Your task to perform on an android device: Check the news Image 0: 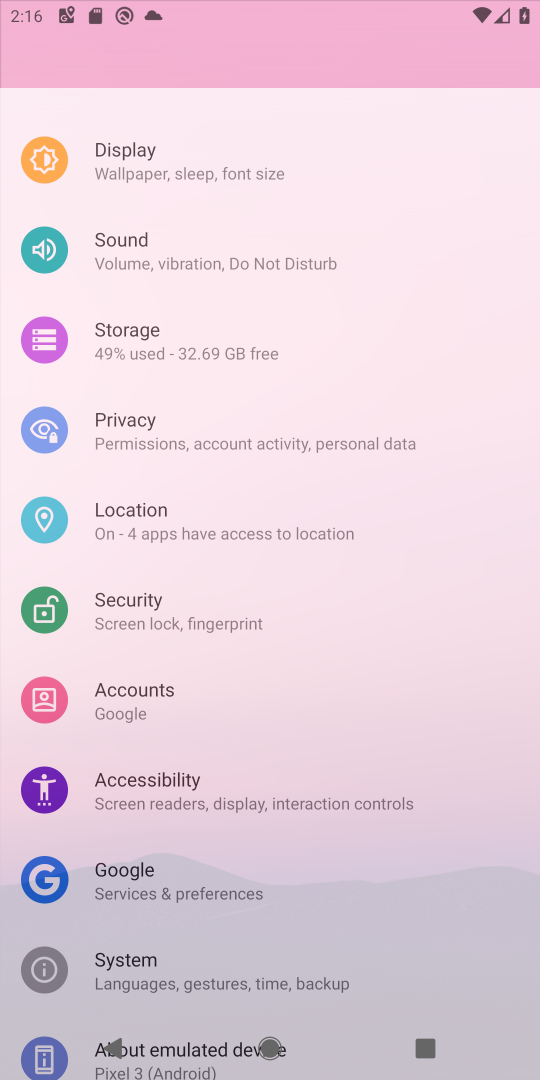
Step 0: press home button
Your task to perform on an android device: Check the news Image 1: 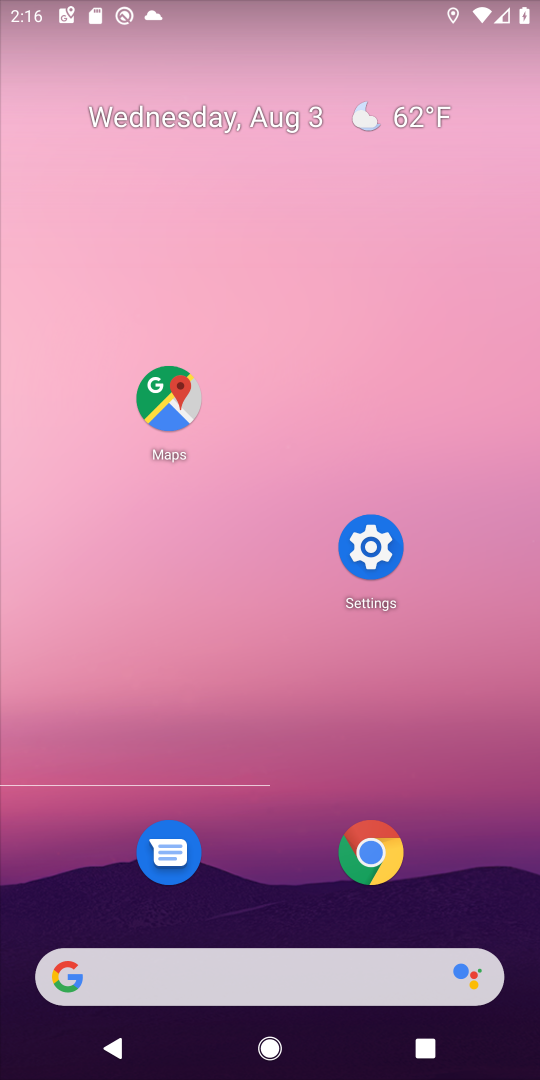
Step 1: press home button
Your task to perform on an android device: Check the news Image 2: 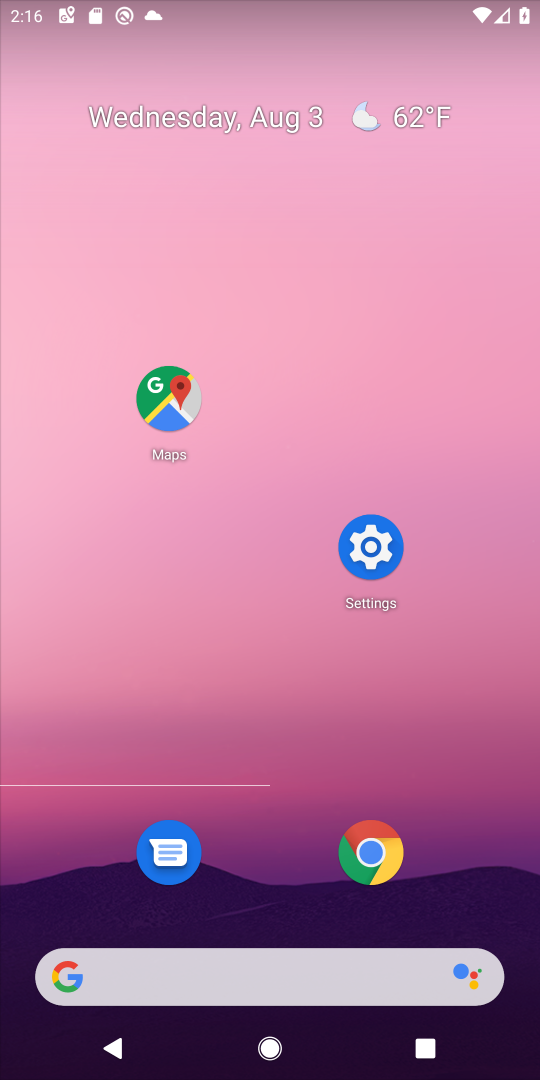
Step 2: click (191, 964)
Your task to perform on an android device: Check the news Image 3: 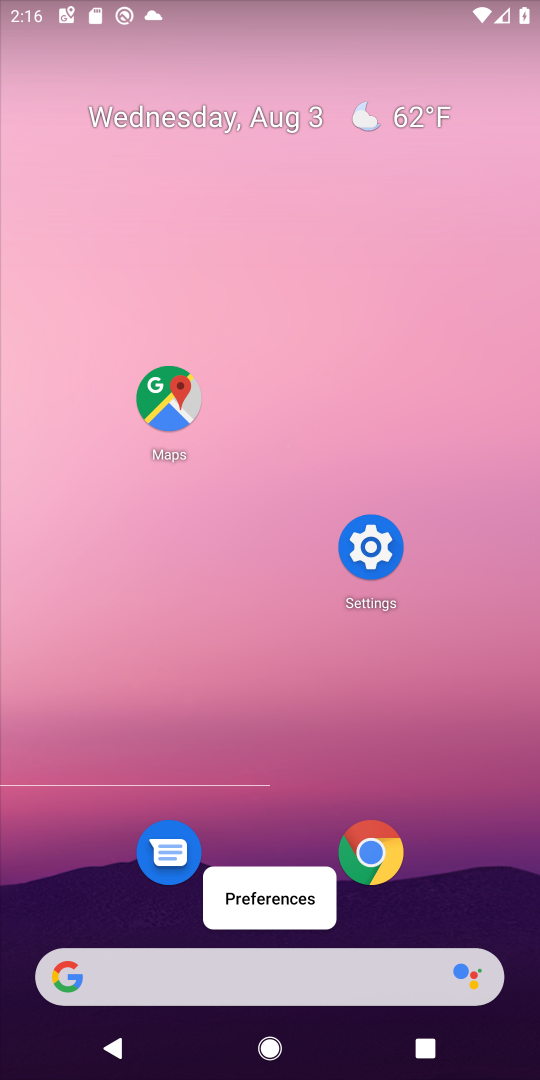
Step 3: click (143, 978)
Your task to perform on an android device: Check the news Image 4: 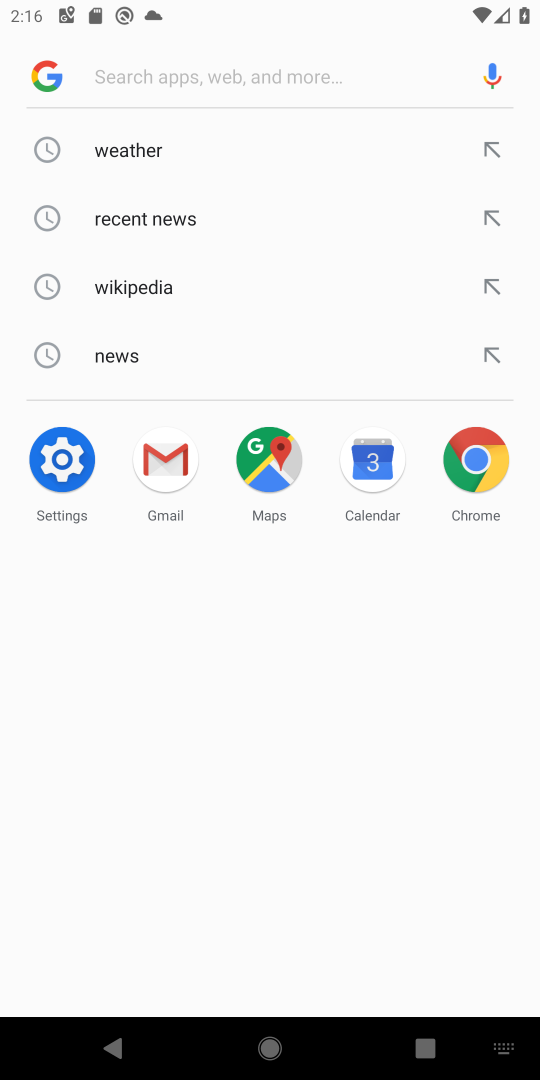
Step 4: click (110, 346)
Your task to perform on an android device: Check the news Image 5: 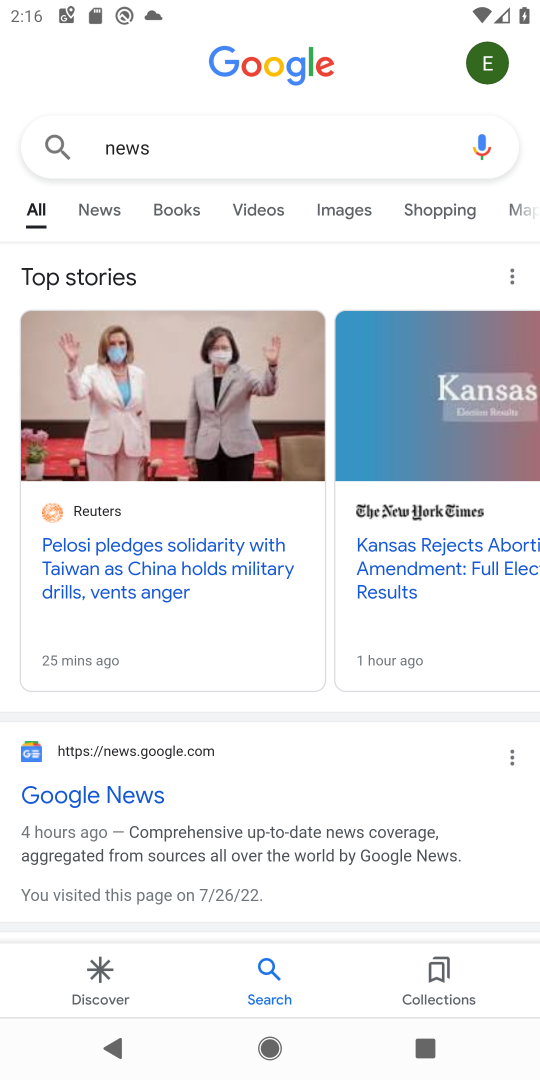
Step 5: click (94, 212)
Your task to perform on an android device: Check the news Image 6: 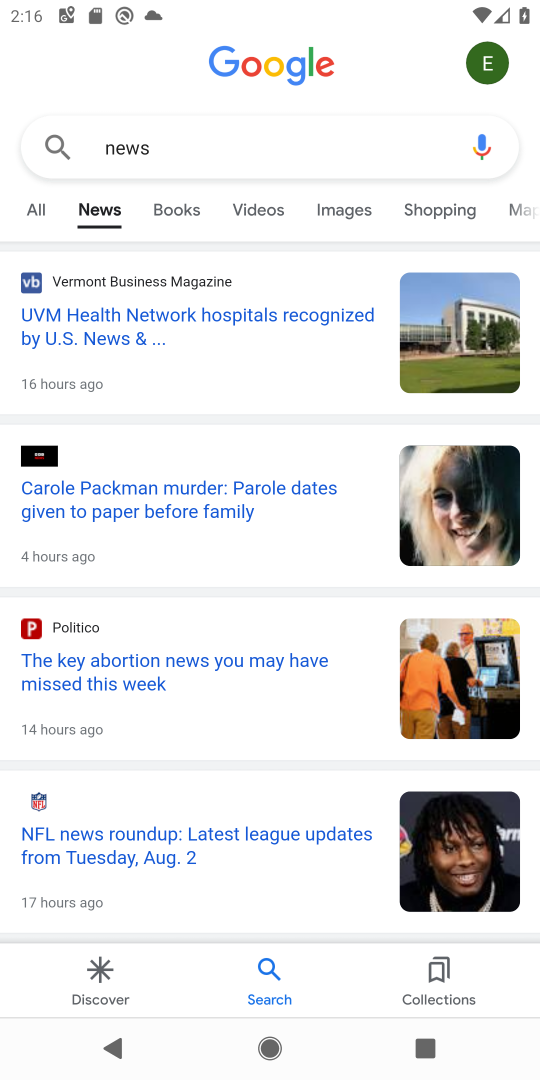
Step 6: task complete